Your task to perform on an android device: turn on the 12-hour format for clock Image 0: 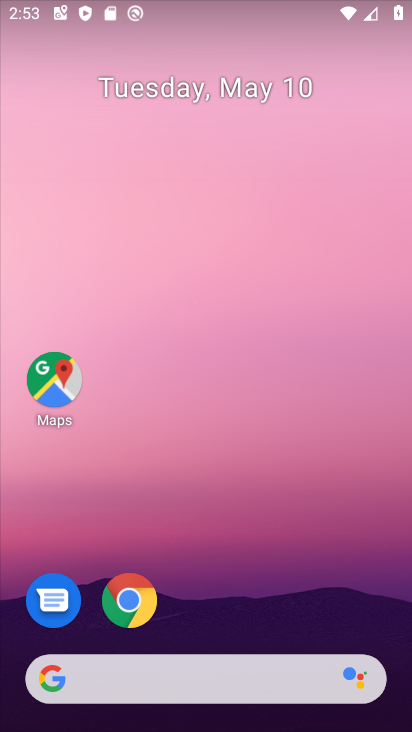
Step 0: drag from (204, 594) to (201, 183)
Your task to perform on an android device: turn on the 12-hour format for clock Image 1: 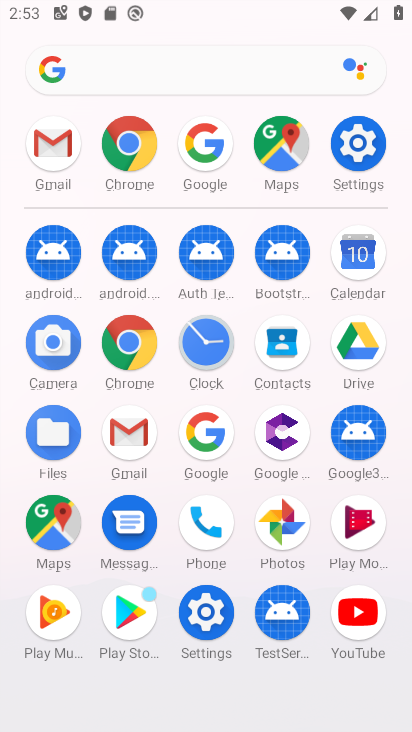
Step 1: click (209, 341)
Your task to perform on an android device: turn on the 12-hour format for clock Image 2: 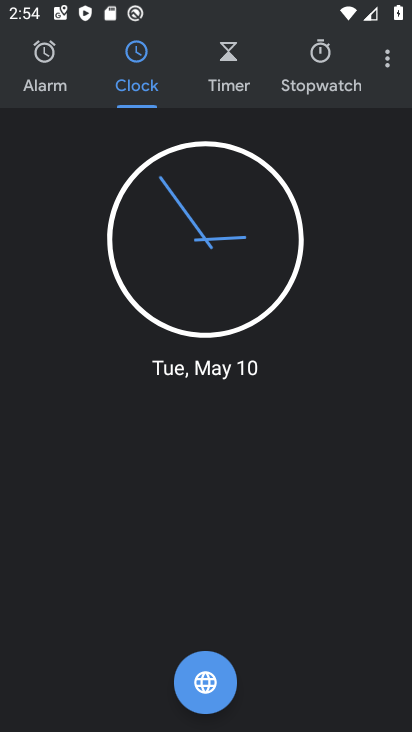
Step 2: click (390, 76)
Your task to perform on an android device: turn on the 12-hour format for clock Image 3: 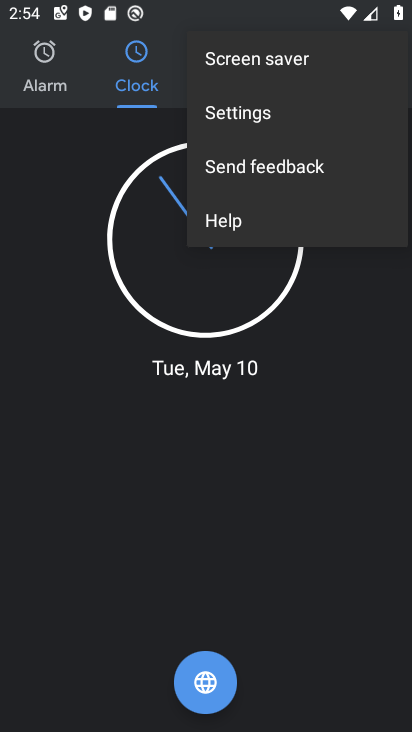
Step 3: click (252, 103)
Your task to perform on an android device: turn on the 12-hour format for clock Image 4: 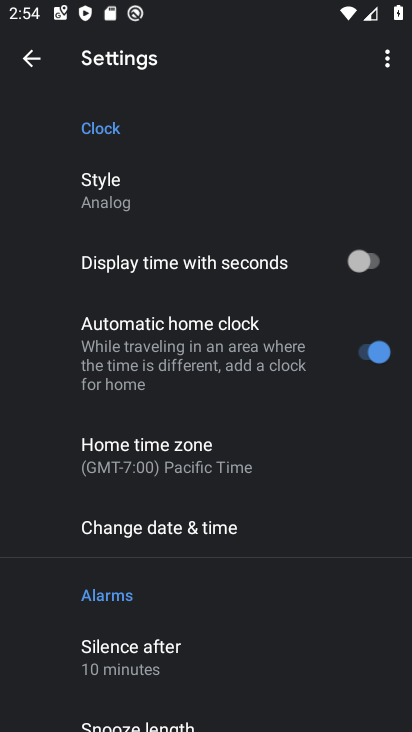
Step 4: click (247, 544)
Your task to perform on an android device: turn on the 12-hour format for clock Image 5: 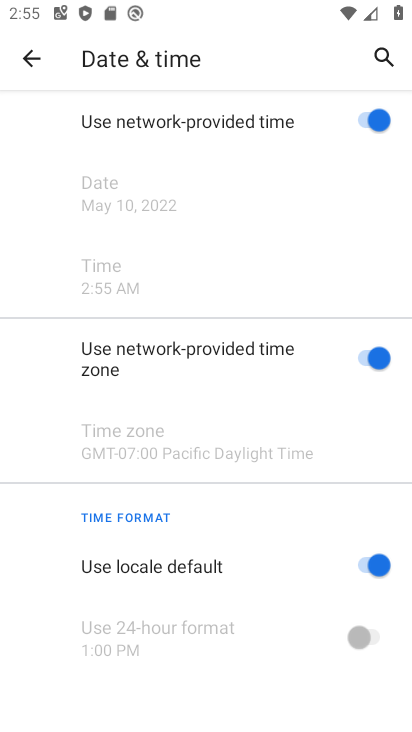
Step 5: task complete